Your task to perform on an android device: Go to notification settings Image 0: 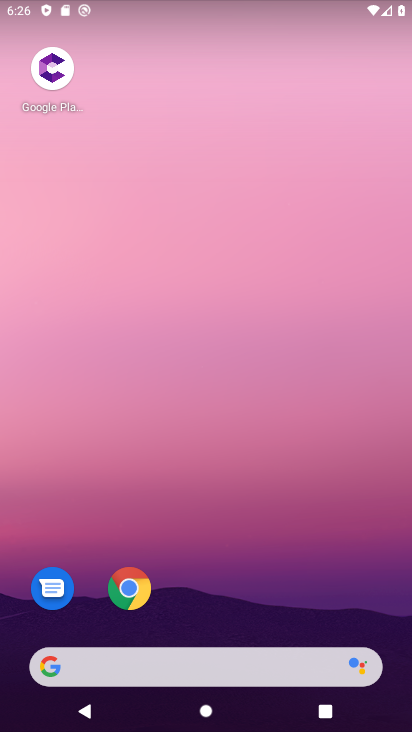
Step 0: drag from (171, 605) to (252, 76)
Your task to perform on an android device: Go to notification settings Image 1: 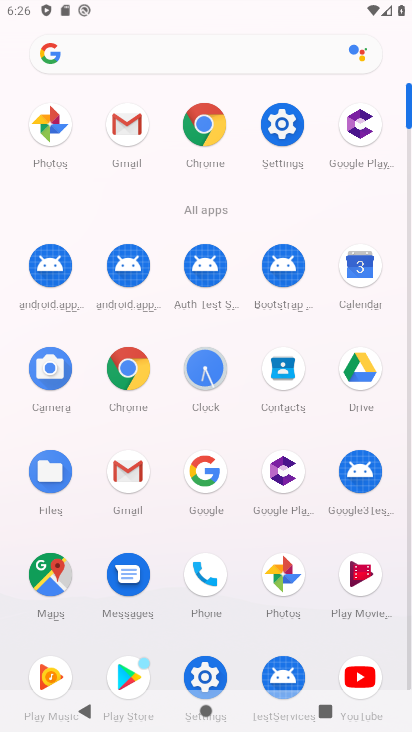
Step 1: click (284, 154)
Your task to perform on an android device: Go to notification settings Image 2: 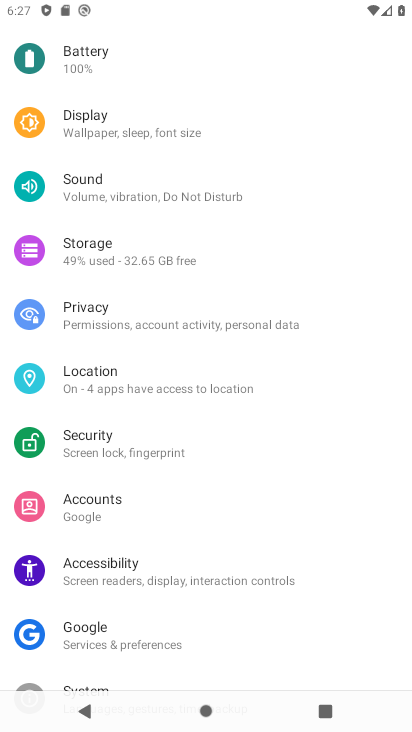
Step 2: drag from (226, 149) to (220, 594)
Your task to perform on an android device: Go to notification settings Image 3: 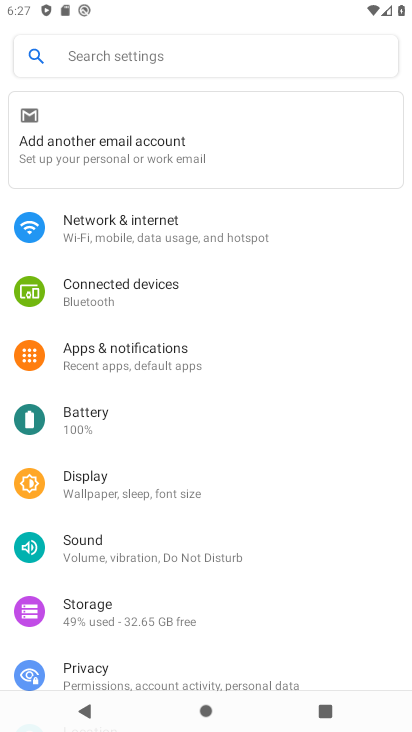
Step 3: click (158, 367)
Your task to perform on an android device: Go to notification settings Image 4: 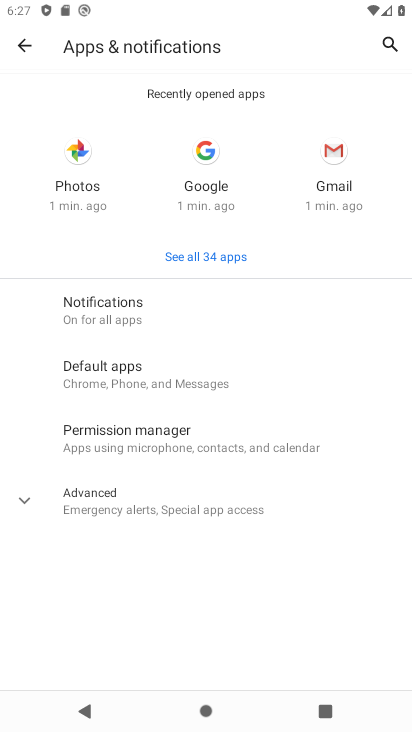
Step 4: task complete